Your task to perform on an android device: Open notification settings Image 0: 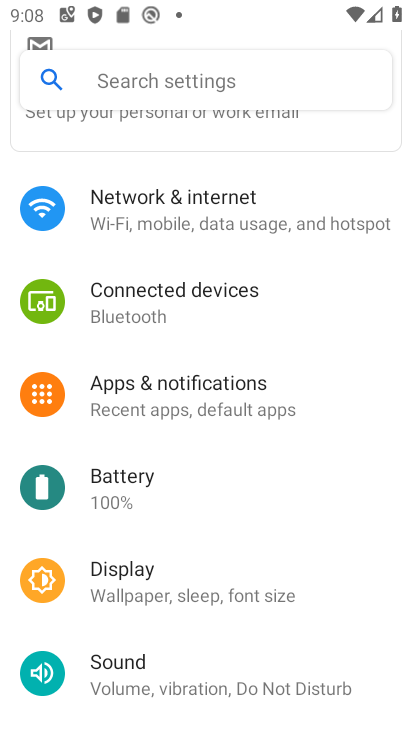
Step 0: press home button
Your task to perform on an android device: Open notification settings Image 1: 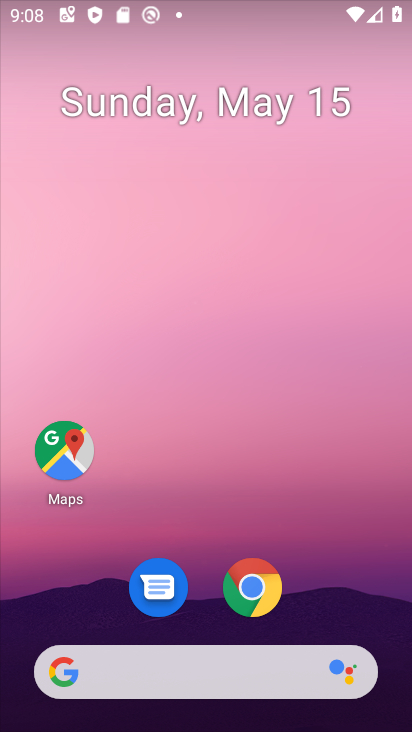
Step 1: drag from (387, 645) to (208, 74)
Your task to perform on an android device: Open notification settings Image 2: 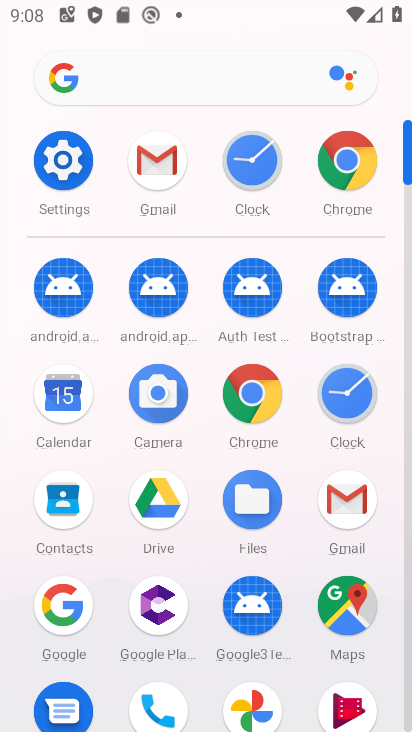
Step 2: click (86, 166)
Your task to perform on an android device: Open notification settings Image 3: 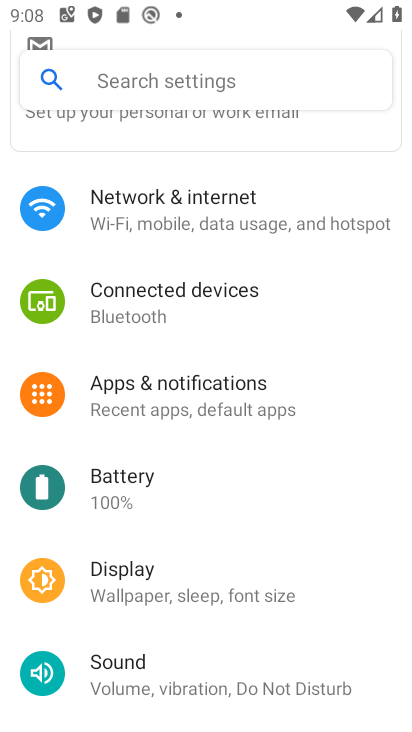
Step 3: click (214, 441)
Your task to perform on an android device: Open notification settings Image 4: 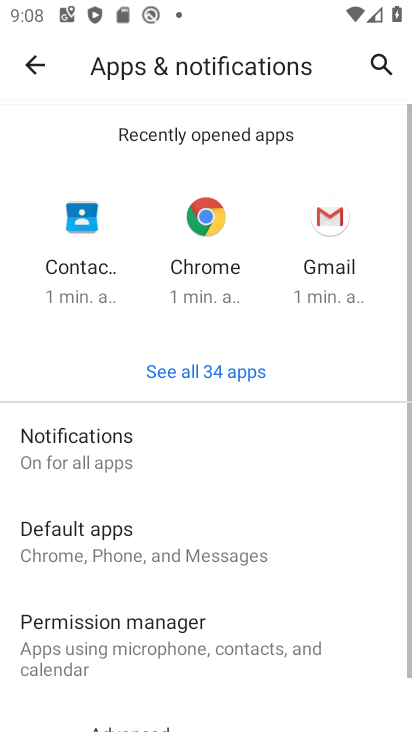
Step 4: click (134, 442)
Your task to perform on an android device: Open notification settings Image 5: 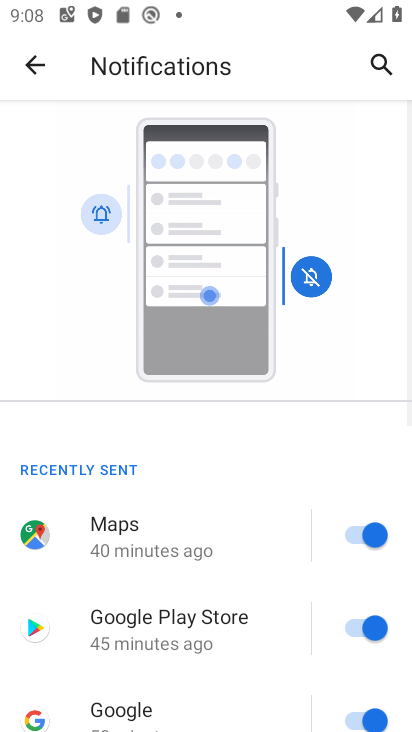
Step 5: task complete